Your task to perform on an android device: toggle javascript in the chrome app Image 0: 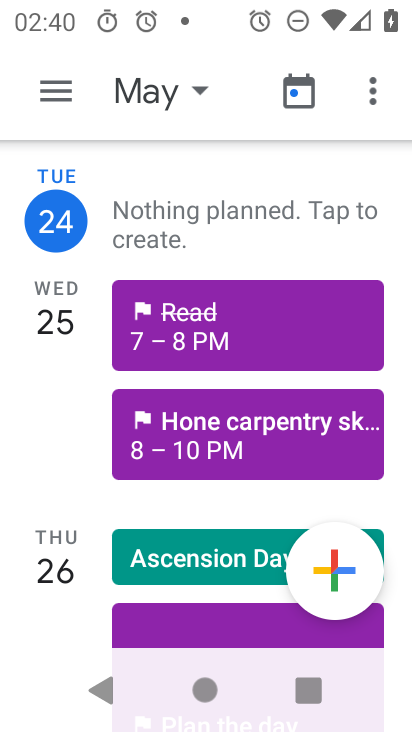
Step 0: press home button
Your task to perform on an android device: toggle javascript in the chrome app Image 1: 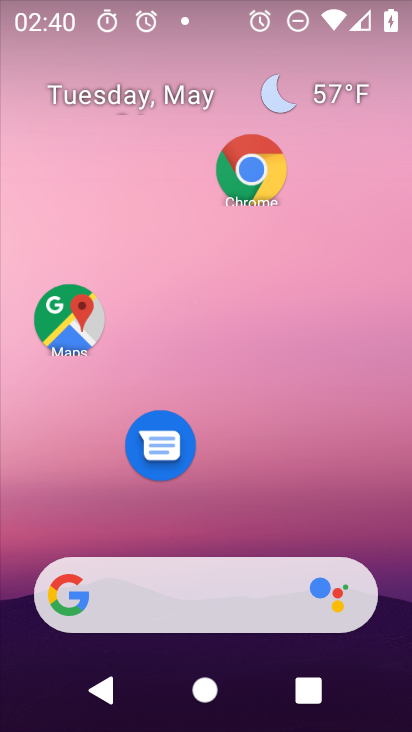
Step 1: click (252, 169)
Your task to perform on an android device: toggle javascript in the chrome app Image 2: 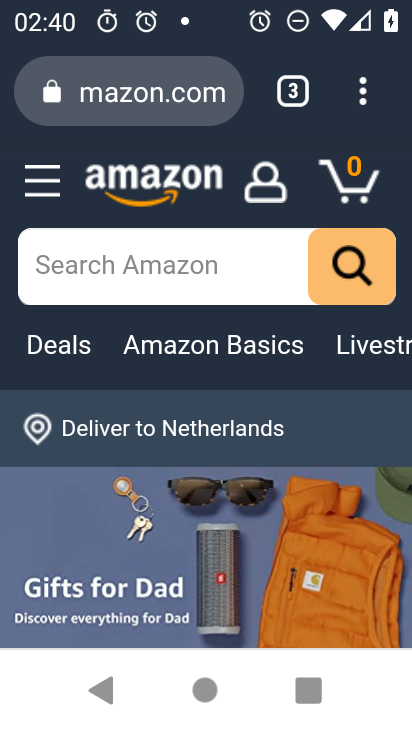
Step 2: click (366, 101)
Your task to perform on an android device: toggle javascript in the chrome app Image 3: 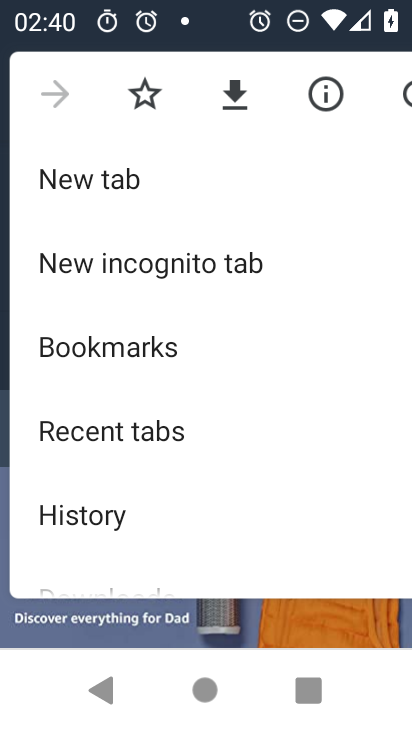
Step 3: drag from (86, 522) to (100, 186)
Your task to perform on an android device: toggle javascript in the chrome app Image 4: 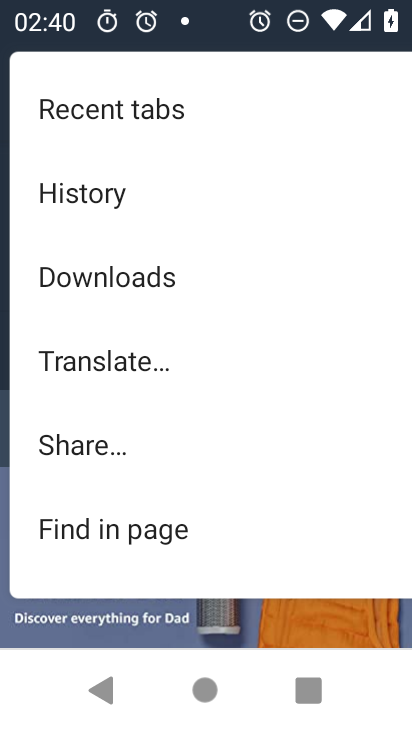
Step 4: drag from (96, 544) to (104, 164)
Your task to perform on an android device: toggle javascript in the chrome app Image 5: 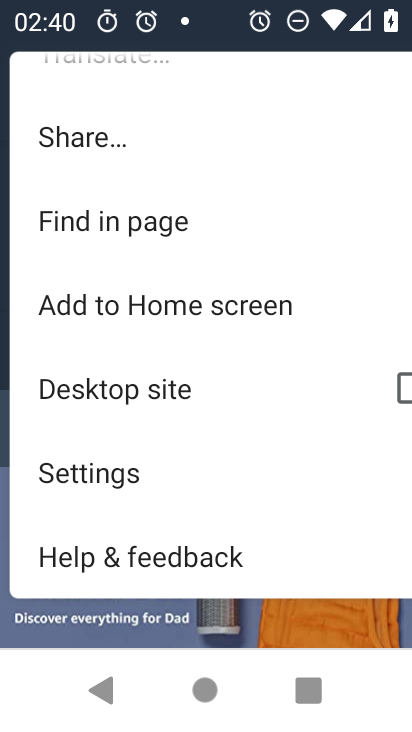
Step 5: click (103, 474)
Your task to perform on an android device: toggle javascript in the chrome app Image 6: 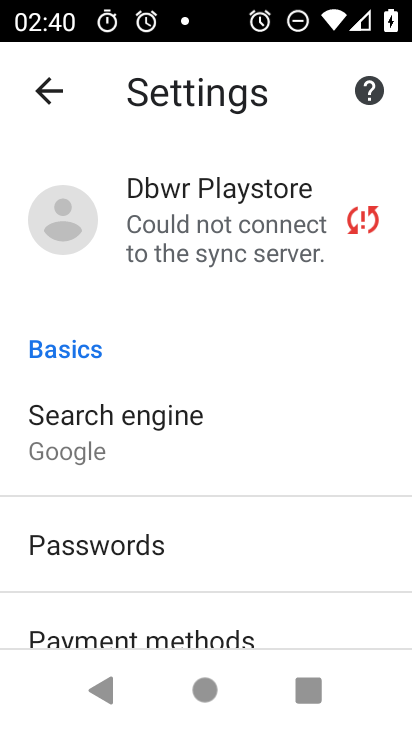
Step 6: drag from (154, 633) to (154, 229)
Your task to perform on an android device: toggle javascript in the chrome app Image 7: 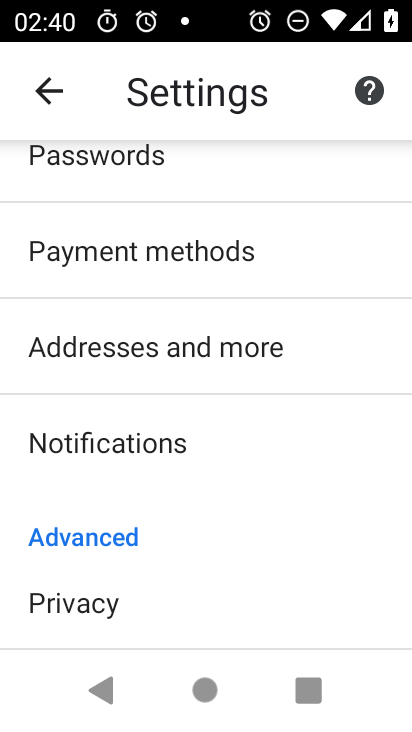
Step 7: drag from (112, 619) to (115, 278)
Your task to perform on an android device: toggle javascript in the chrome app Image 8: 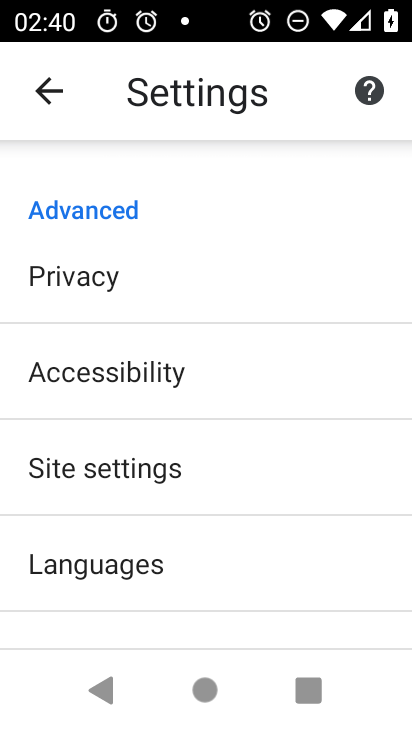
Step 8: click (120, 463)
Your task to perform on an android device: toggle javascript in the chrome app Image 9: 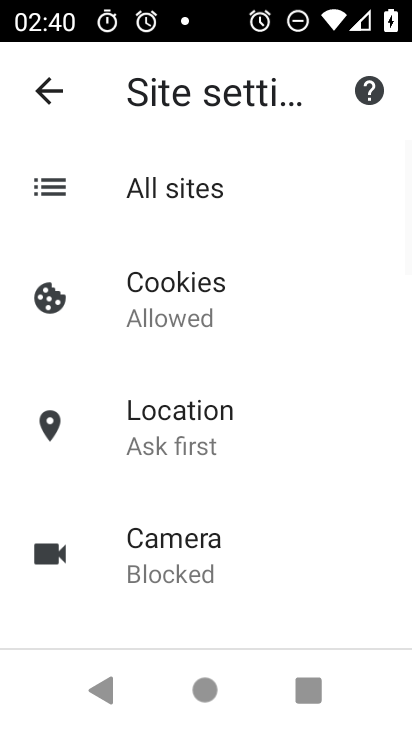
Step 9: drag from (186, 599) to (189, 250)
Your task to perform on an android device: toggle javascript in the chrome app Image 10: 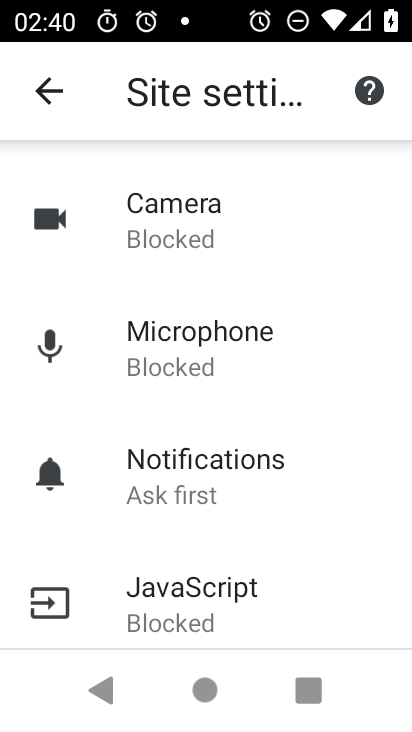
Step 10: click (179, 592)
Your task to perform on an android device: toggle javascript in the chrome app Image 11: 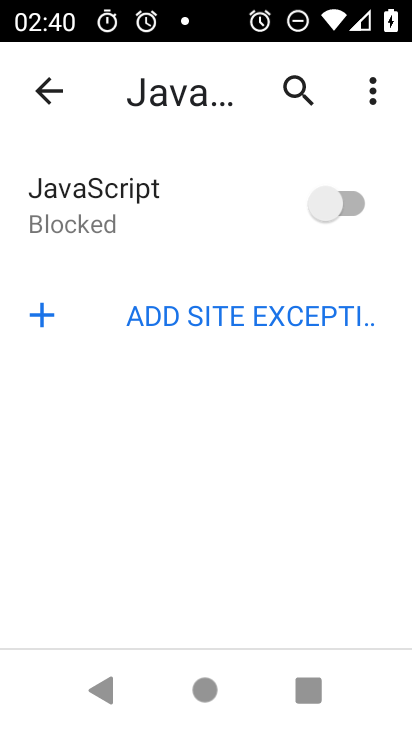
Step 11: click (350, 199)
Your task to perform on an android device: toggle javascript in the chrome app Image 12: 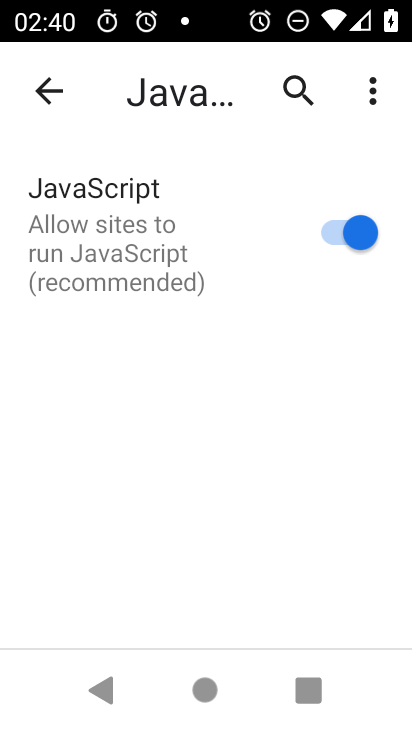
Step 12: task complete